Your task to perform on an android device: Open calendar and show me the third week of next month Image 0: 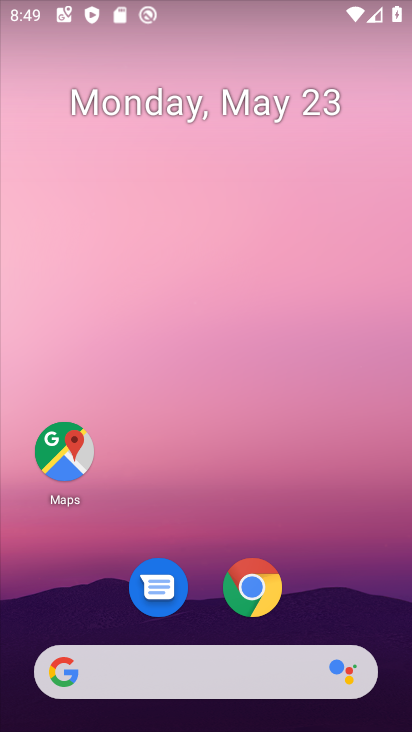
Step 0: click (214, 109)
Your task to perform on an android device: Open calendar and show me the third week of next month Image 1: 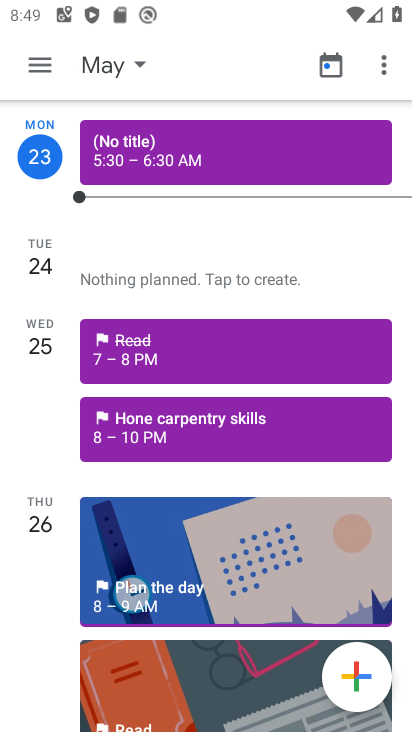
Step 1: click (45, 59)
Your task to perform on an android device: Open calendar and show me the third week of next month Image 2: 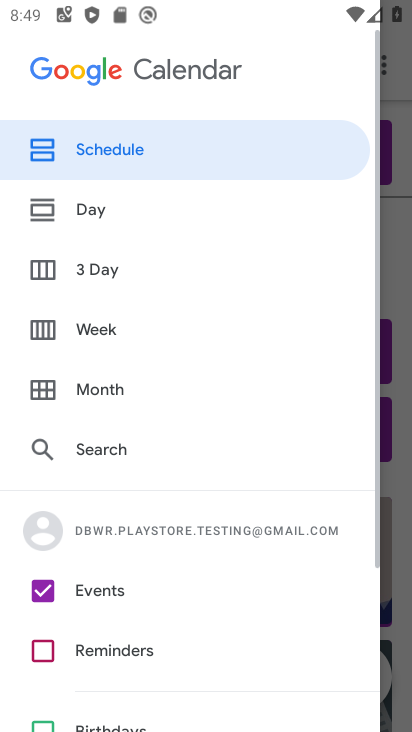
Step 2: click (101, 325)
Your task to perform on an android device: Open calendar and show me the third week of next month Image 3: 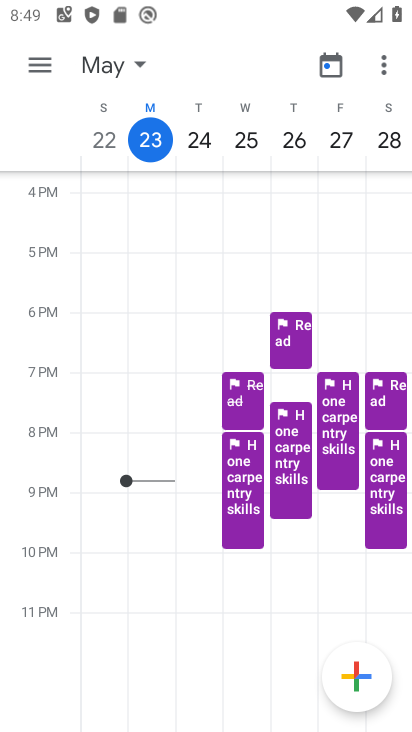
Step 3: click (123, 63)
Your task to perform on an android device: Open calendar and show me the third week of next month Image 4: 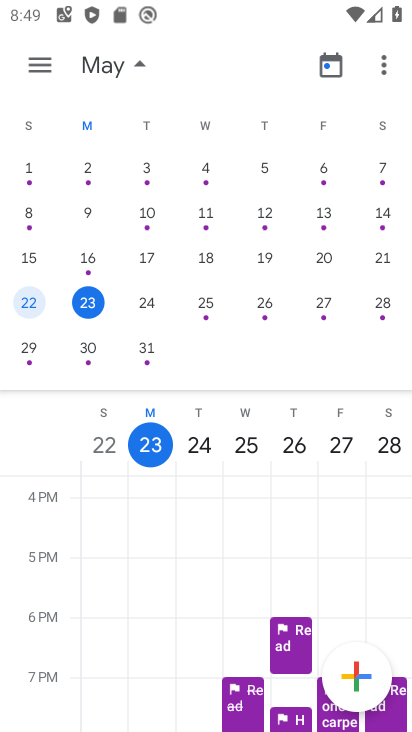
Step 4: drag from (327, 291) to (6, 251)
Your task to perform on an android device: Open calendar and show me the third week of next month Image 5: 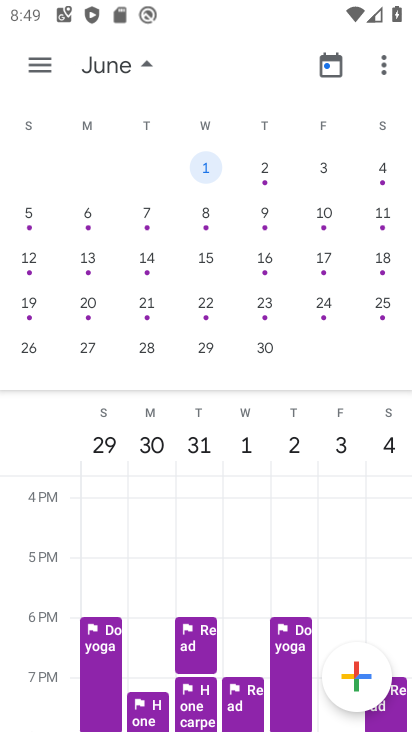
Step 5: click (231, 253)
Your task to perform on an android device: Open calendar and show me the third week of next month Image 6: 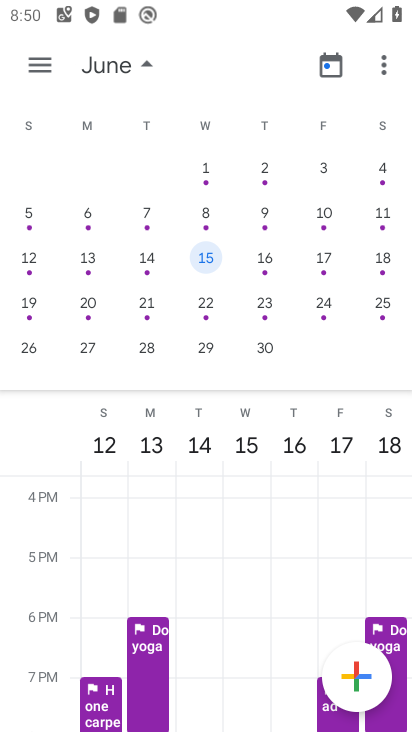
Step 6: task complete